Your task to perform on an android device: Open battery settings Image 0: 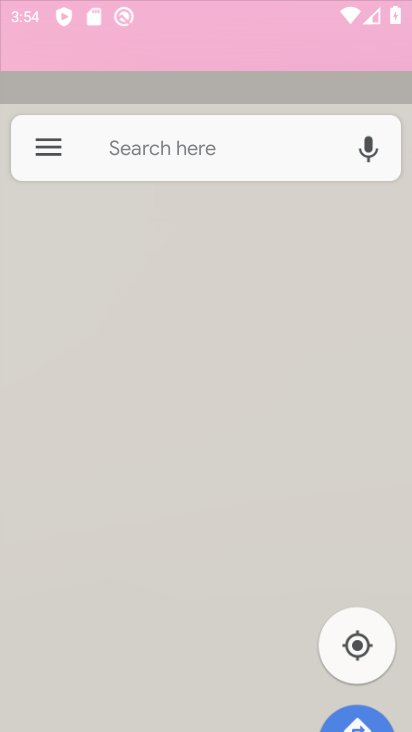
Step 0: click (292, 16)
Your task to perform on an android device: Open battery settings Image 1: 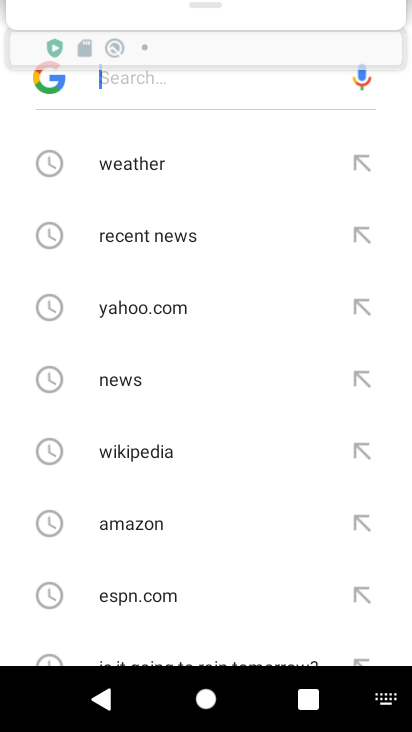
Step 1: press home button
Your task to perform on an android device: Open battery settings Image 2: 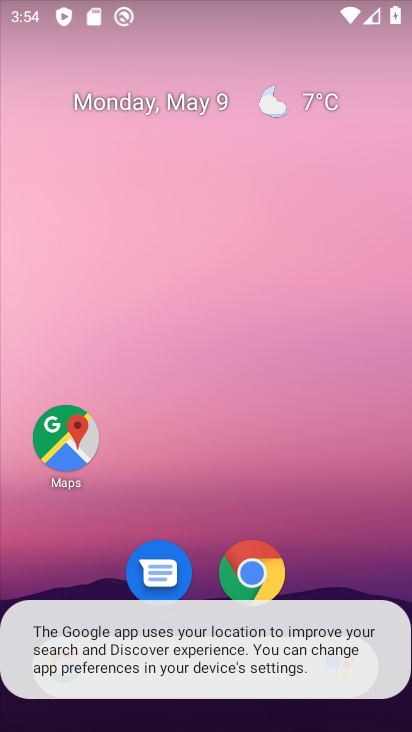
Step 2: drag from (309, 527) to (259, 14)
Your task to perform on an android device: Open battery settings Image 3: 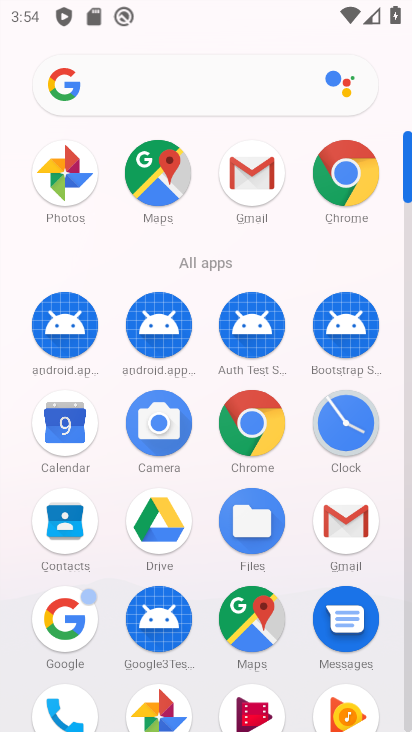
Step 3: click (186, 71)
Your task to perform on an android device: Open battery settings Image 4: 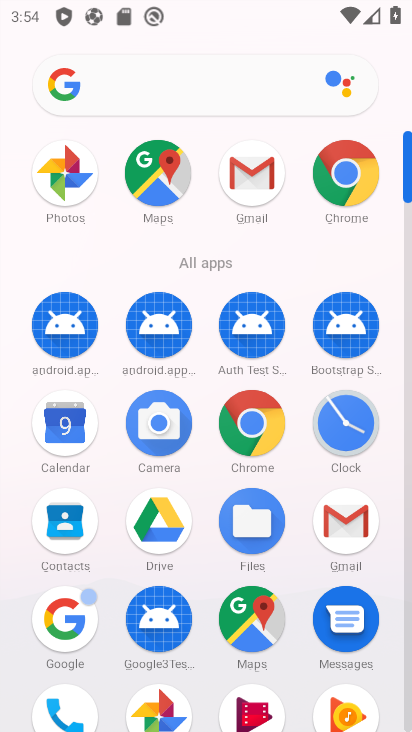
Step 4: drag from (203, 292) to (196, 15)
Your task to perform on an android device: Open battery settings Image 5: 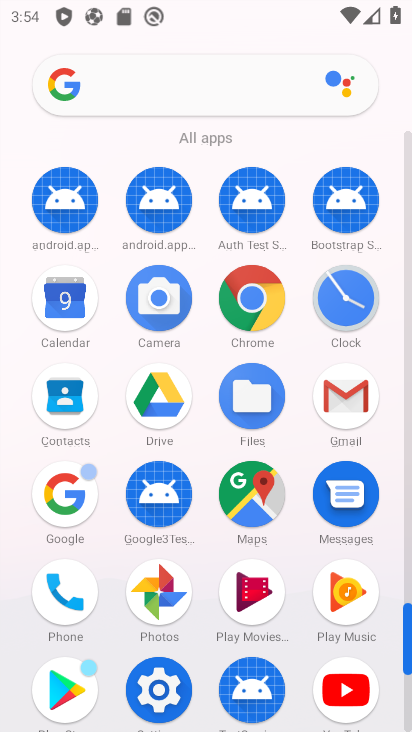
Step 5: click (162, 684)
Your task to perform on an android device: Open battery settings Image 6: 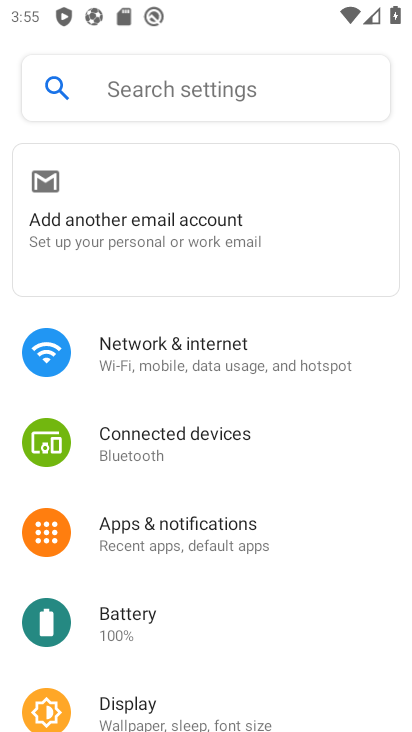
Step 6: drag from (214, 667) to (175, 370)
Your task to perform on an android device: Open battery settings Image 7: 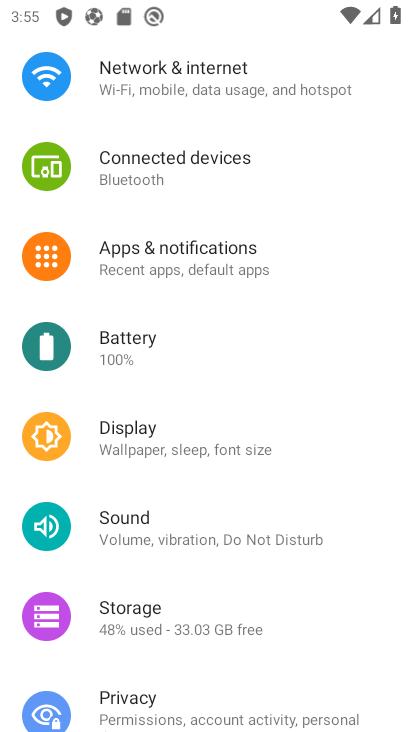
Step 7: click (161, 344)
Your task to perform on an android device: Open battery settings Image 8: 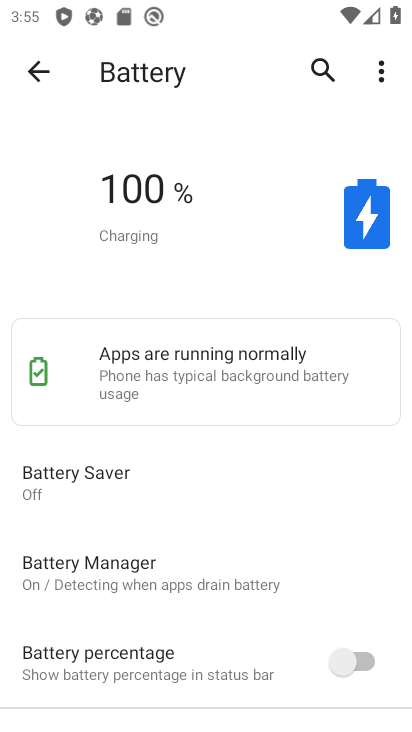
Step 8: task complete